Your task to perform on an android device: turn on showing notifications on the lock screen Image 0: 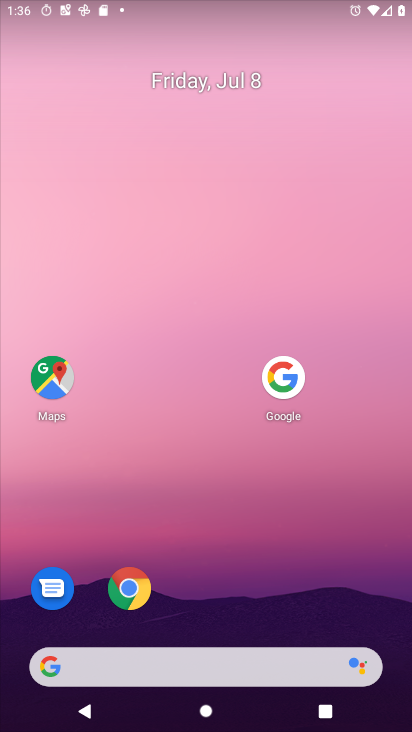
Step 0: drag from (183, 666) to (304, 122)
Your task to perform on an android device: turn on showing notifications on the lock screen Image 1: 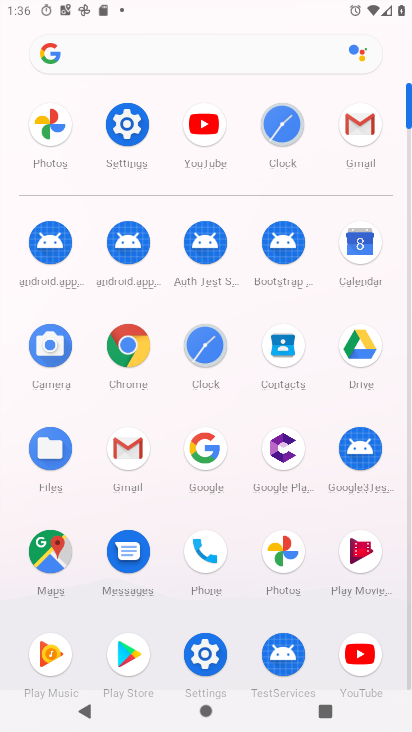
Step 1: click (129, 122)
Your task to perform on an android device: turn on showing notifications on the lock screen Image 2: 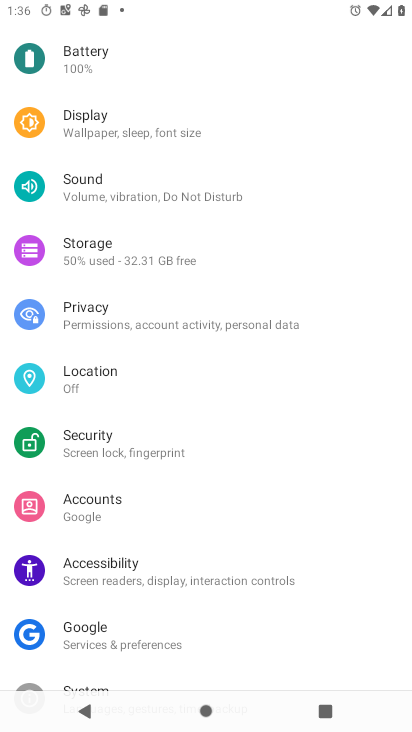
Step 2: drag from (219, 105) to (207, 591)
Your task to perform on an android device: turn on showing notifications on the lock screen Image 3: 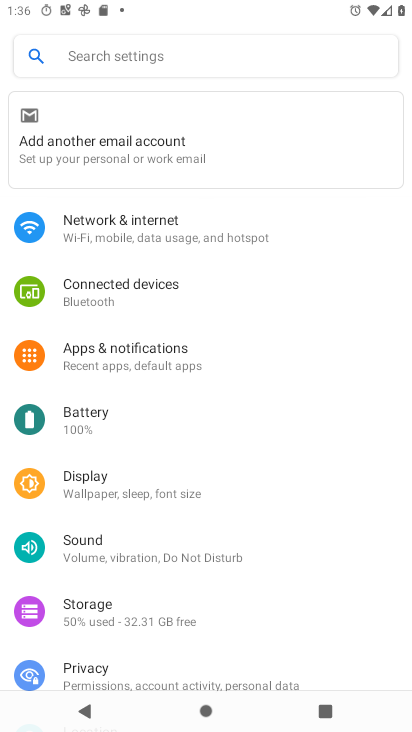
Step 3: click (151, 350)
Your task to perform on an android device: turn on showing notifications on the lock screen Image 4: 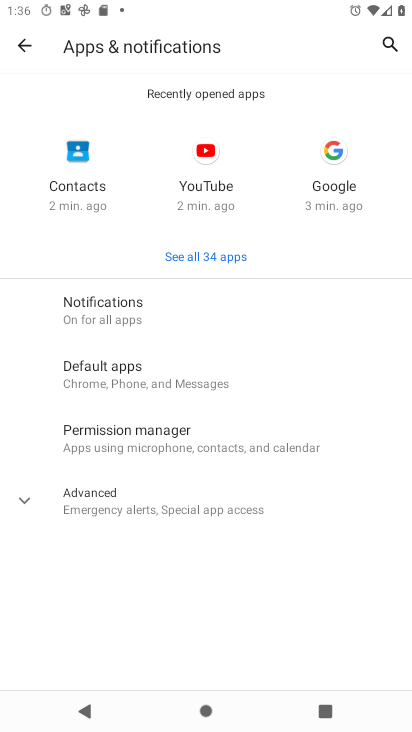
Step 4: click (121, 304)
Your task to perform on an android device: turn on showing notifications on the lock screen Image 5: 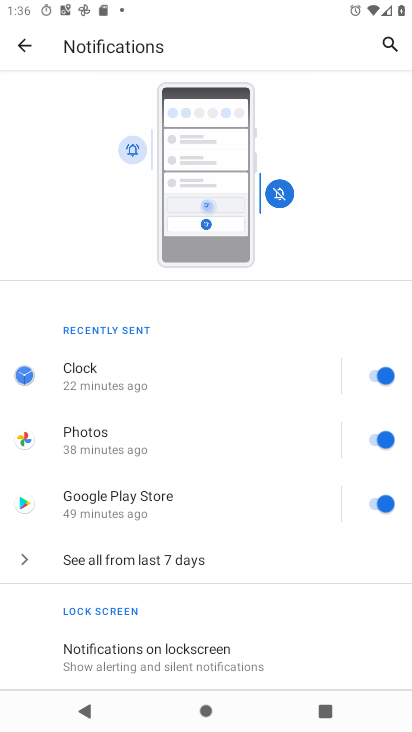
Step 5: click (215, 651)
Your task to perform on an android device: turn on showing notifications on the lock screen Image 6: 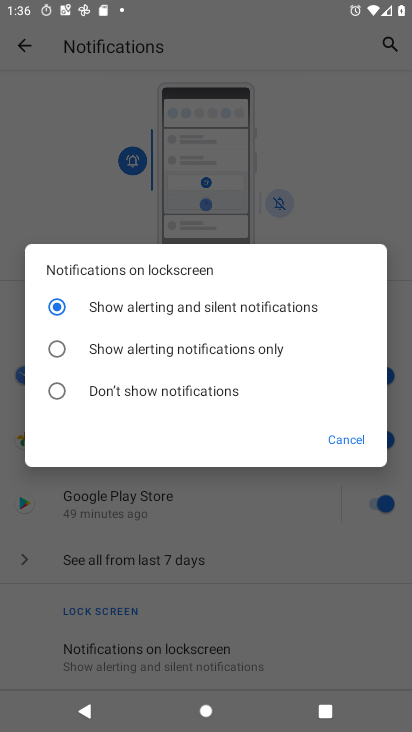
Step 6: task complete